Your task to perform on an android device: Open the map Image 0: 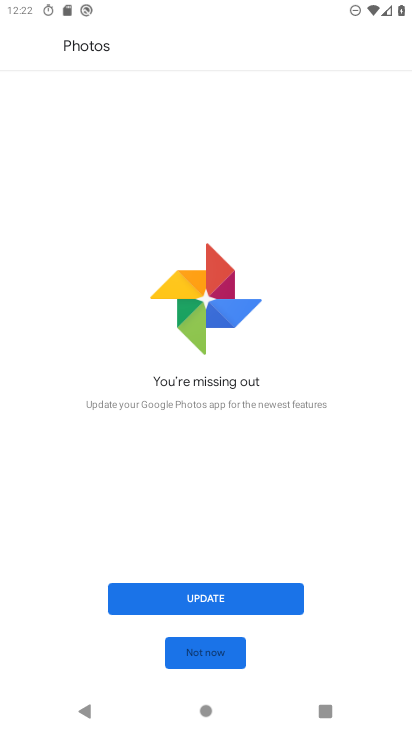
Step 0: press home button
Your task to perform on an android device: Open the map Image 1: 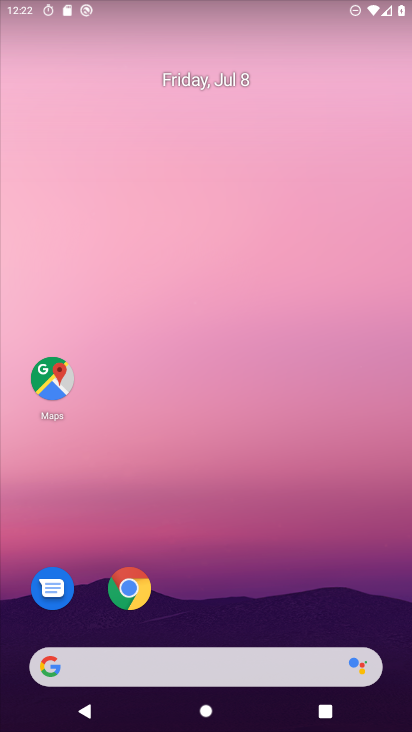
Step 1: drag from (307, 570) to (282, 0)
Your task to perform on an android device: Open the map Image 2: 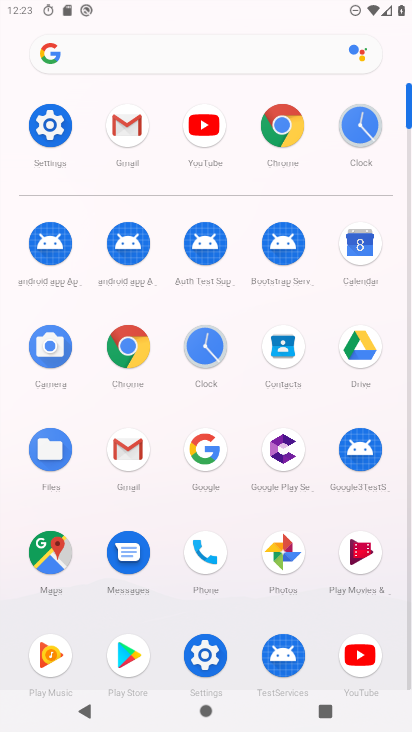
Step 2: click (59, 544)
Your task to perform on an android device: Open the map Image 3: 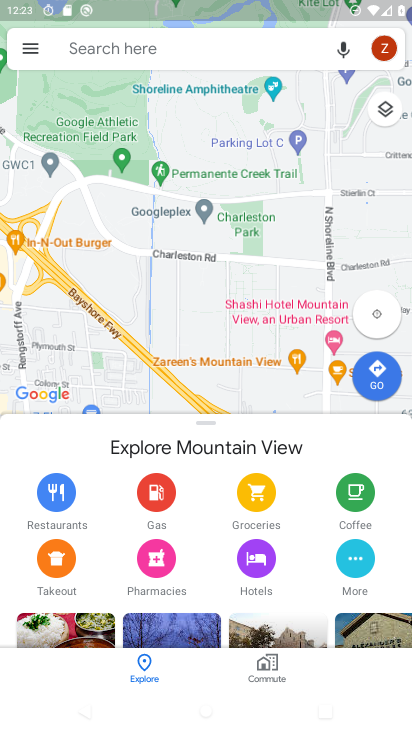
Step 3: task complete